Your task to perform on an android device: turn on the 12-hour format for clock Image 0: 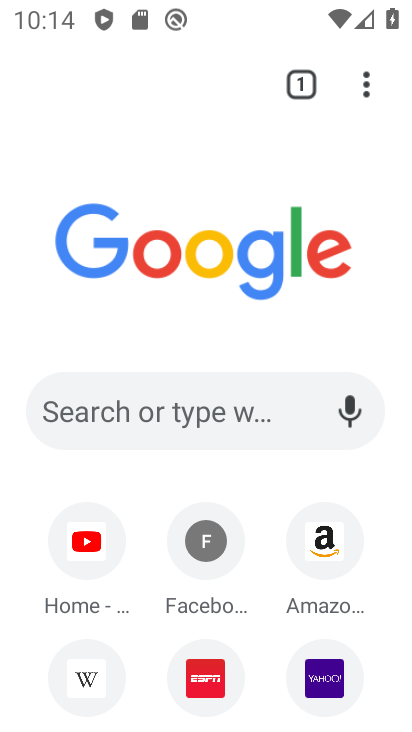
Step 0: press home button
Your task to perform on an android device: turn on the 12-hour format for clock Image 1: 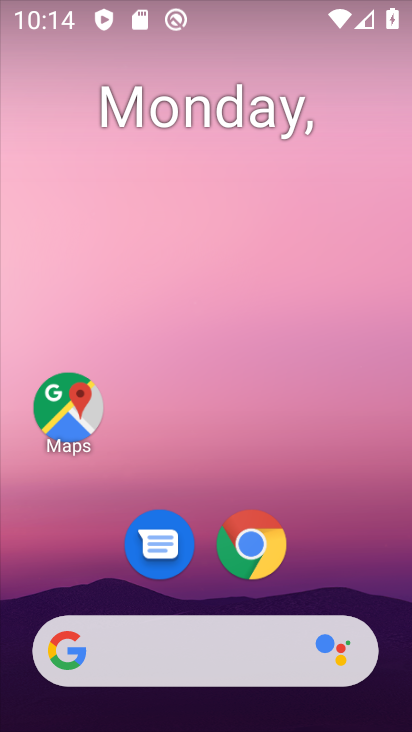
Step 1: drag from (82, 604) to (187, 98)
Your task to perform on an android device: turn on the 12-hour format for clock Image 2: 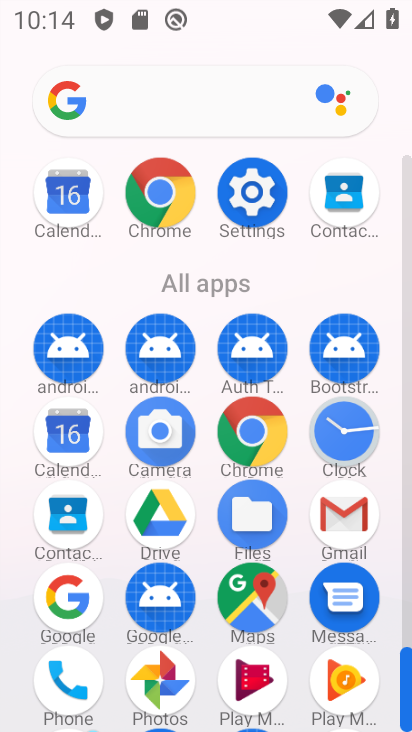
Step 2: click (350, 442)
Your task to perform on an android device: turn on the 12-hour format for clock Image 3: 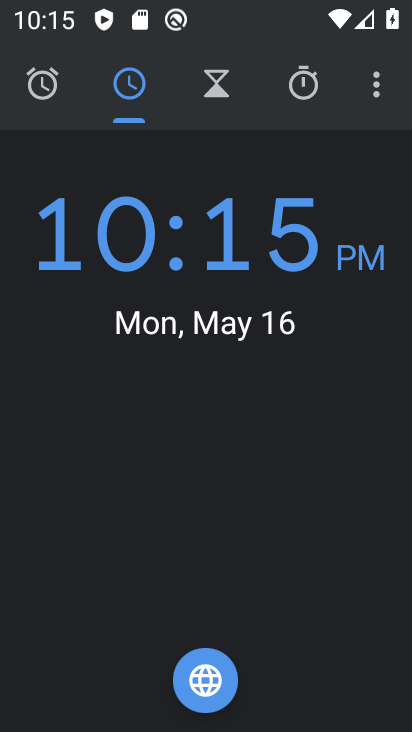
Step 3: click (391, 87)
Your task to perform on an android device: turn on the 12-hour format for clock Image 4: 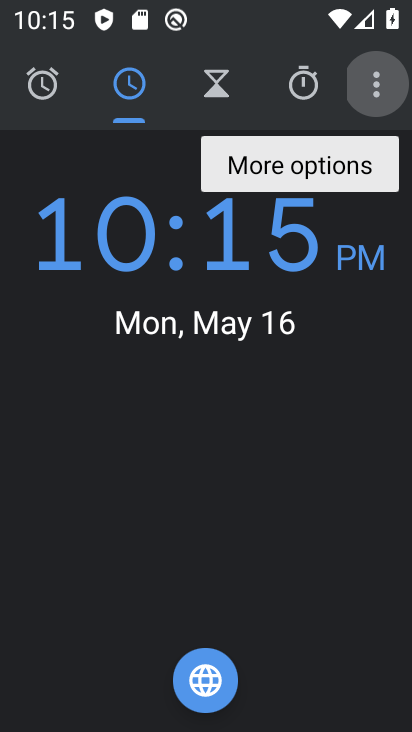
Step 4: click (391, 87)
Your task to perform on an android device: turn on the 12-hour format for clock Image 5: 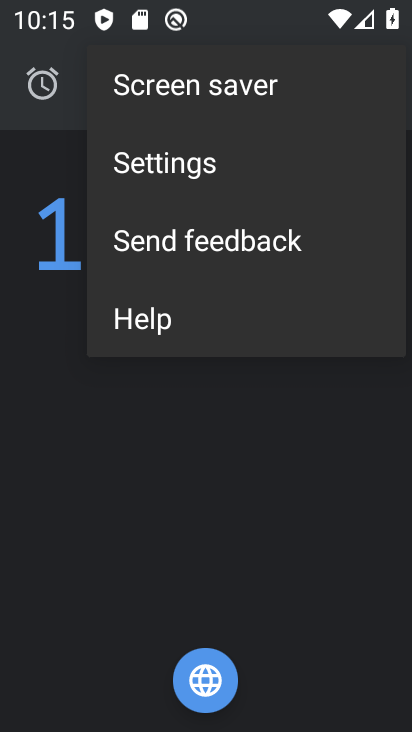
Step 5: click (295, 153)
Your task to perform on an android device: turn on the 12-hour format for clock Image 6: 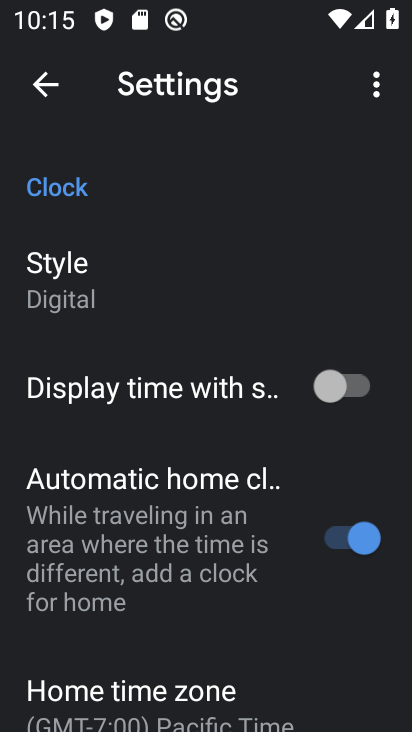
Step 6: drag from (201, 632) to (247, 407)
Your task to perform on an android device: turn on the 12-hour format for clock Image 7: 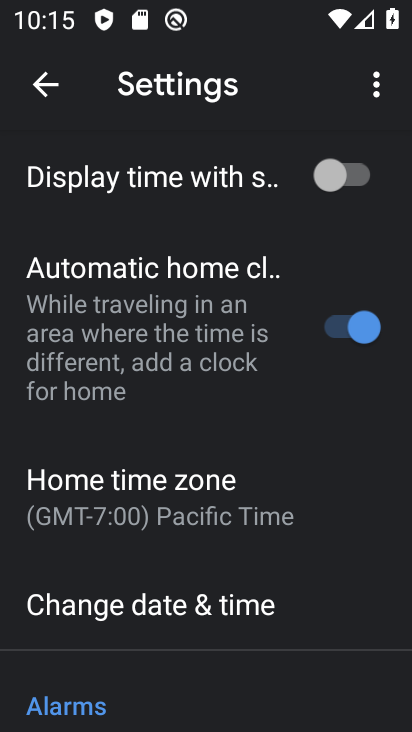
Step 7: click (207, 612)
Your task to perform on an android device: turn on the 12-hour format for clock Image 8: 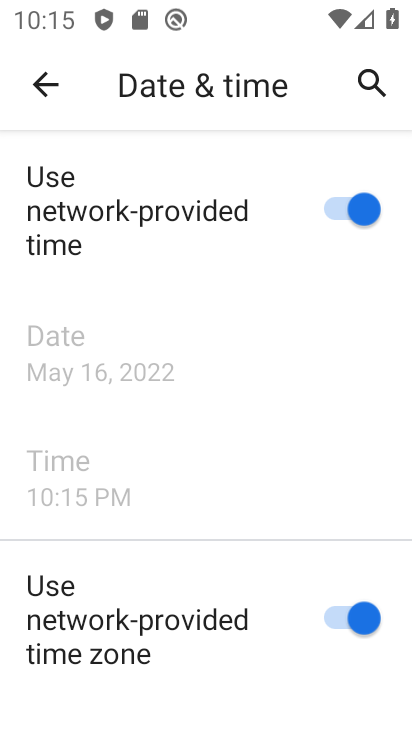
Step 8: task complete